Your task to perform on an android device: change text size in settings app Image 0: 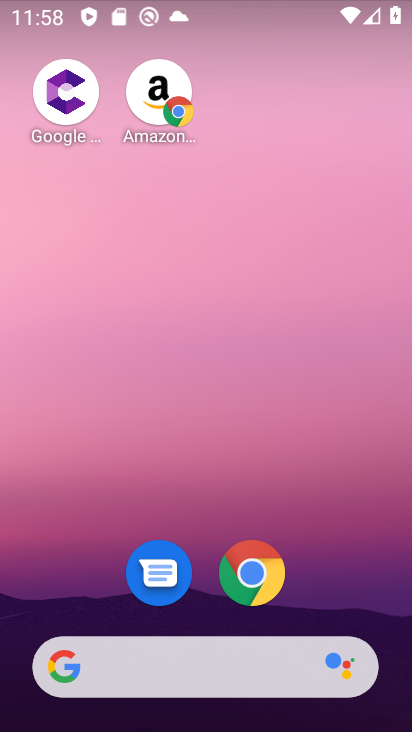
Step 0: drag from (267, 636) to (213, 229)
Your task to perform on an android device: change text size in settings app Image 1: 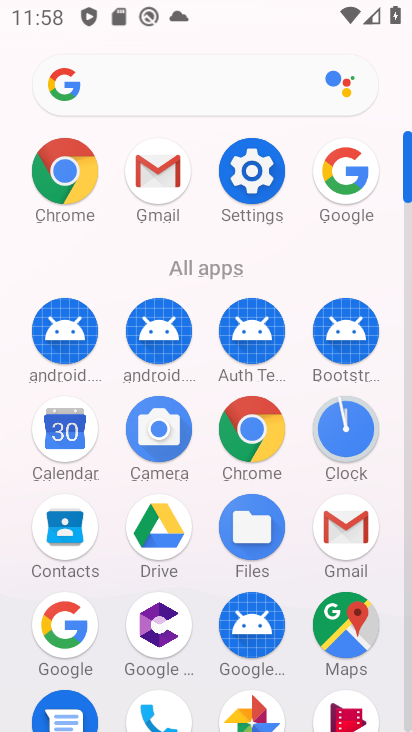
Step 1: click (256, 184)
Your task to perform on an android device: change text size in settings app Image 2: 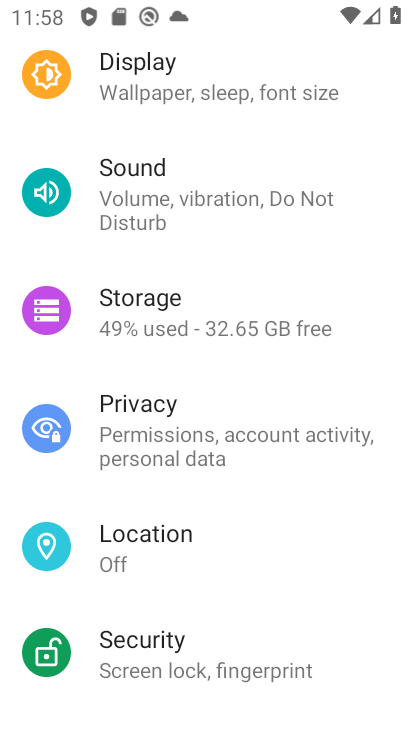
Step 2: click (263, 94)
Your task to perform on an android device: change text size in settings app Image 3: 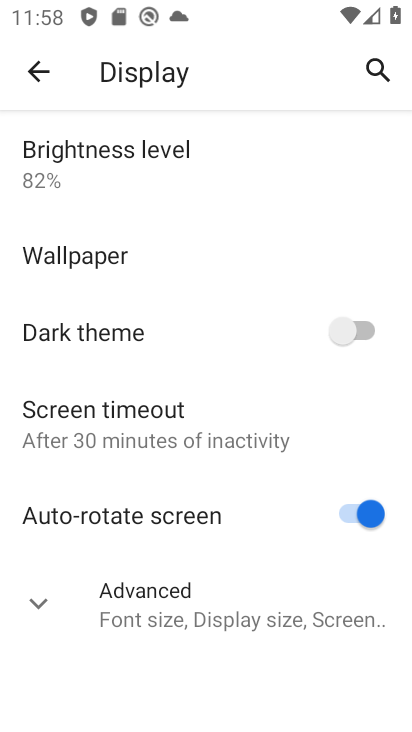
Step 3: click (183, 636)
Your task to perform on an android device: change text size in settings app Image 4: 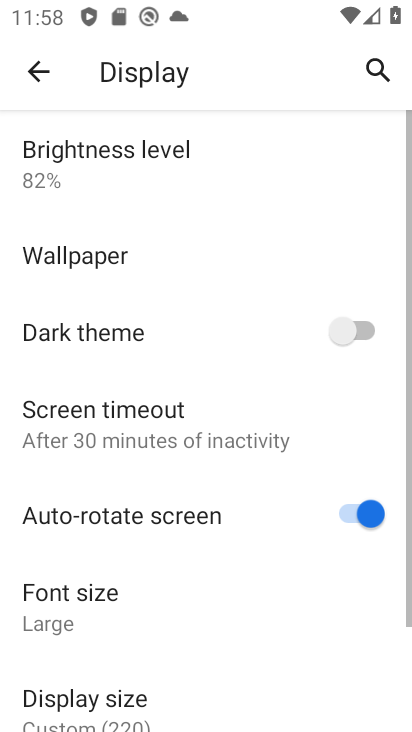
Step 4: drag from (177, 629) to (172, 310)
Your task to perform on an android device: change text size in settings app Image 5: 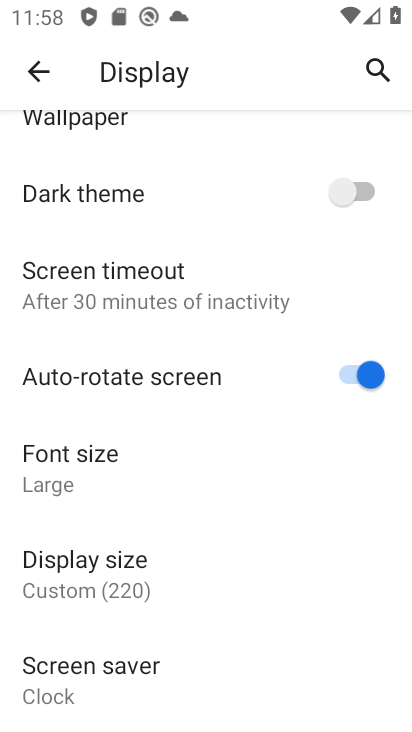
Step 5: click (44, 483)
Your task to perform on an android device: change text size in settings app Image 6: 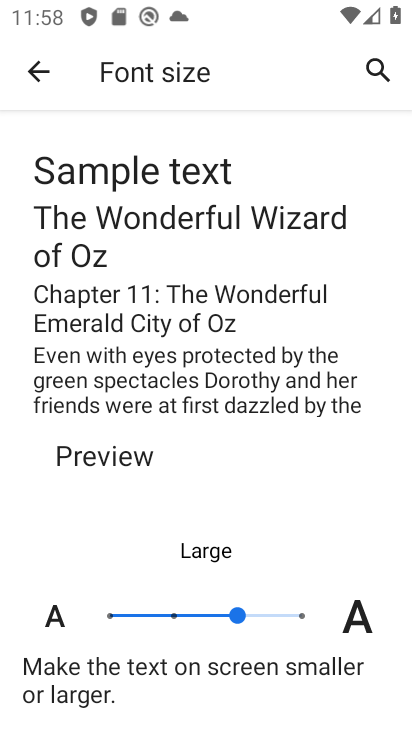
Step 6: click (194, 616)
Your task to perform on an android device: change text size in settings app Image 7: 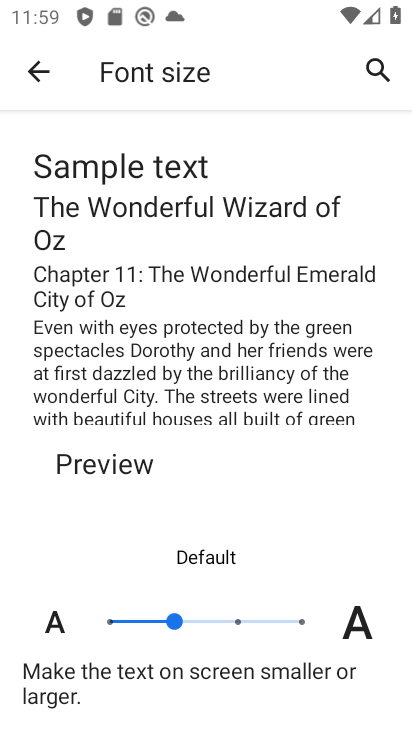
Step 7: click (207, 612)
Your task to perform on an android device: change text size in settings app Image 8: 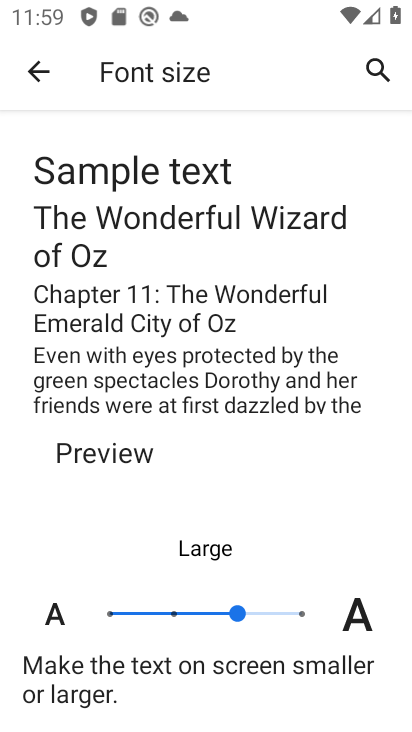
Step 8: task complete